Your task to perform on an android device: turn on notifications settings in the gmail app Image 0: 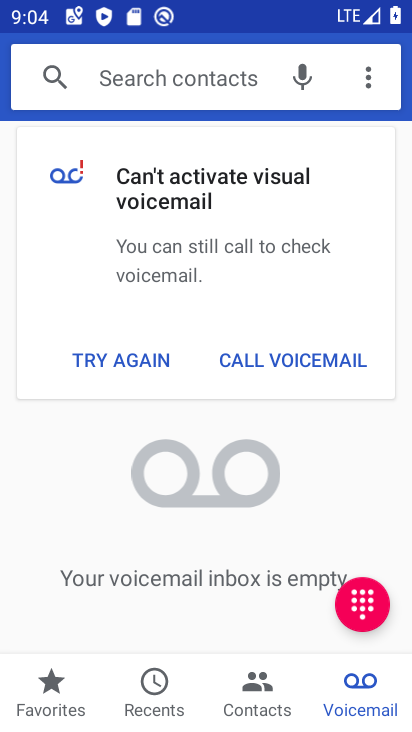
Step 0: press home button
Your task to perform on an android device: turn on notifications settings in the gmail app Image 1: 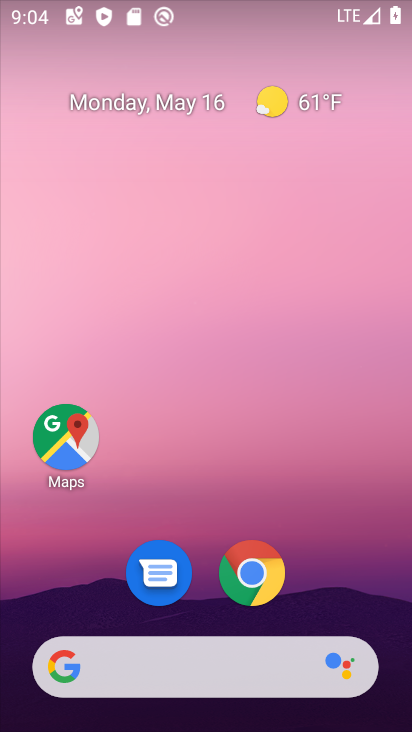
Step 1: drag from (191, 718) to (193, 73)
Your task to perform on an android device: turn on notifications settings in the gmail app Image 2: 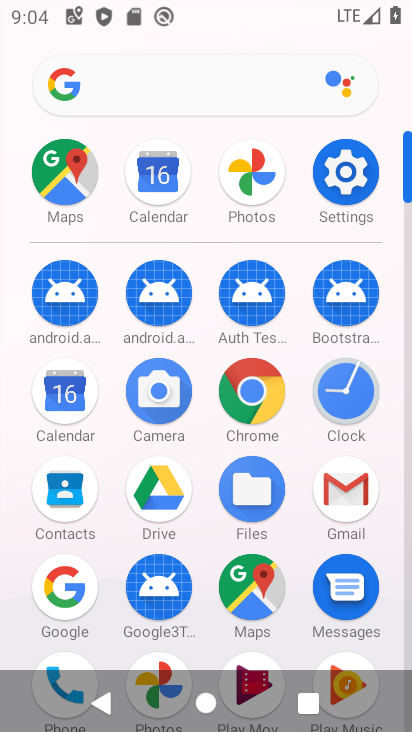
Step 2: click (346, 482)
Your task to perform on an android device: turn on notifications settings in the gmail app Image 3: 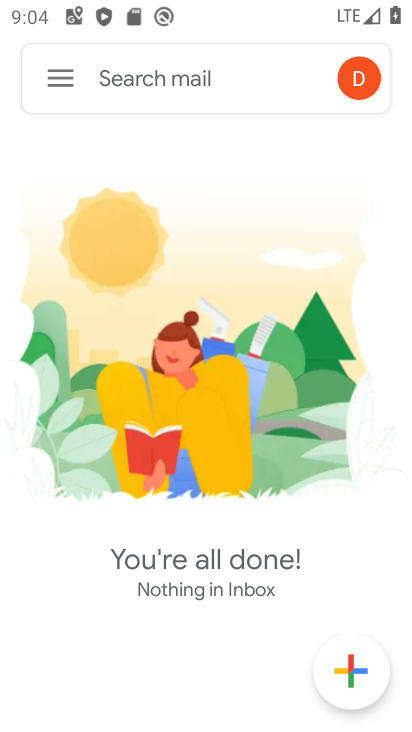
Step 3: click (54, 76)
Your task to perform on an android device: turn on notifications settings in the gmail app Image 4: 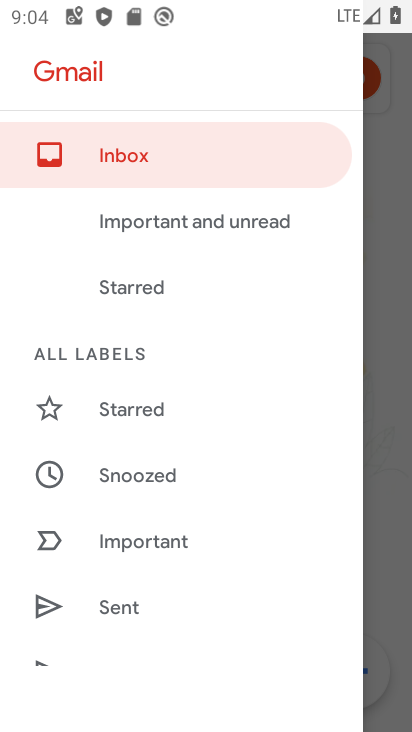
Step 4: drag from (175, 597) to (158, 80)
Your task to perform on an android device: turn on notifications settings in the gmail app Image 5: 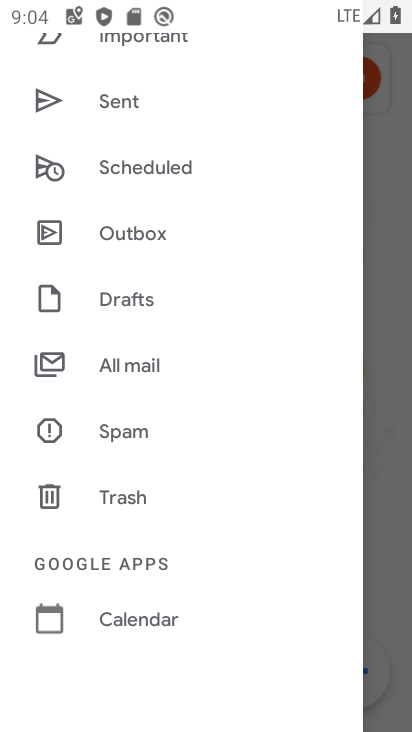
Step 5: drag from (158, 590) to (150, 127)
Your task to perform on an android device: turn on notifications settings in the gmail app Image 6: 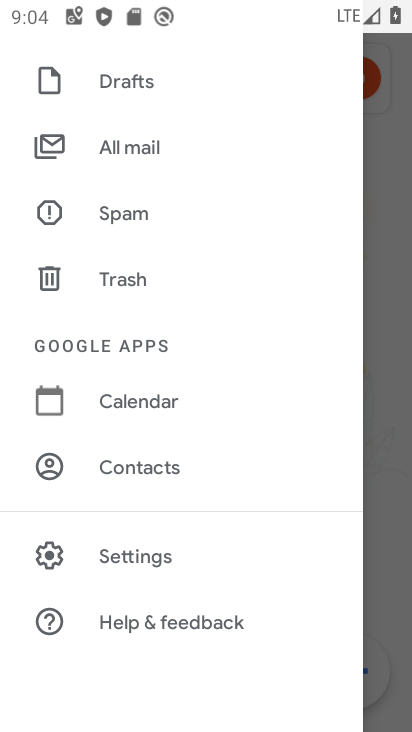
Step 6: click (135, 548)
Your task to perform on an android device: turn on notifications settings in the gmail app Image 7: 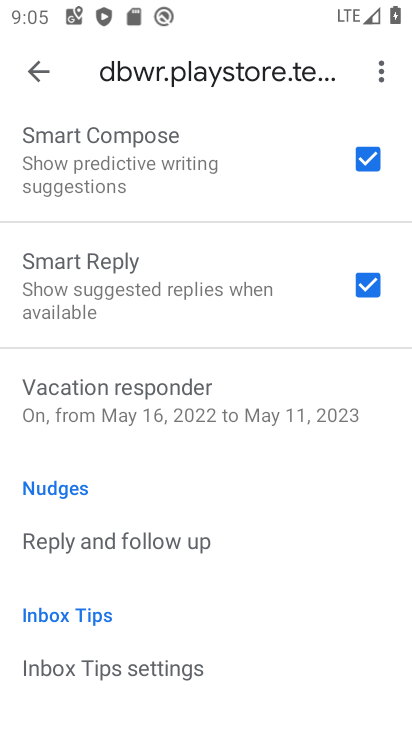
Step 7: drag from (131, 604) to (118, 222)
Your task to perform on an android device: turn on notifications settings in the gmail app Image 8: 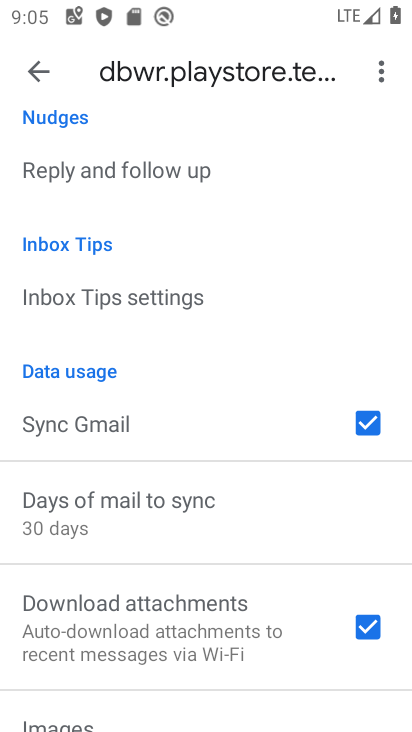
Step 8: drag from (104, 597) to (102, 129)
Your task to perform on an android device: turn on notifications settings in the gmail app Image 9: 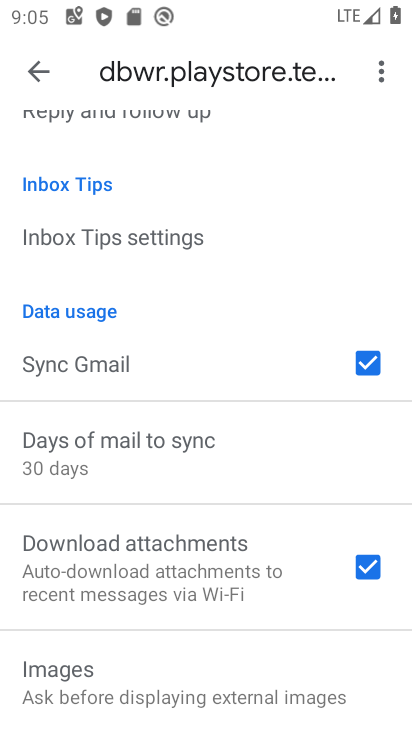
Step 9: drag from (118, 666) to (109, 164)
Your task to perform on an android device: turn on notifications settings in the gmail app Image 10: 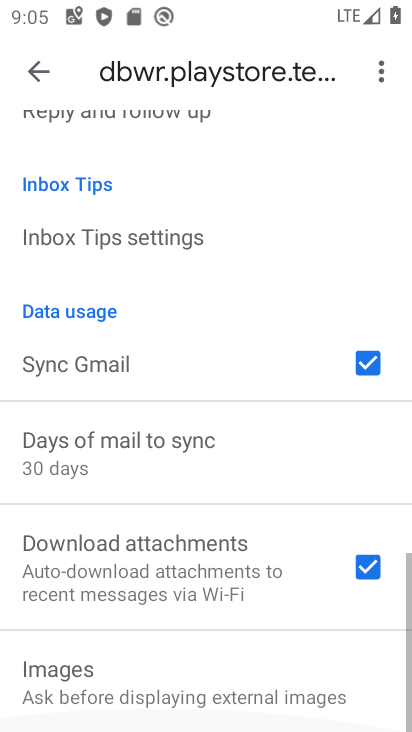
Step 10: drag from (173, 202) to (178, 555)
Your task to perform on an android device: turn on notifications settings in the gmail app Image 11: 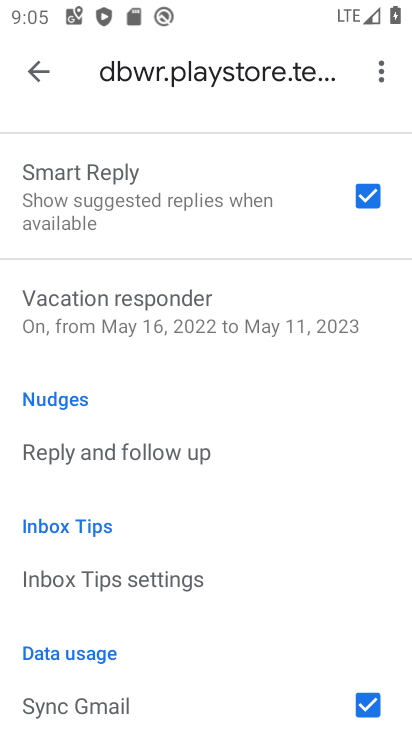
Step 11: drag from (179, 187) to (168, 523)
Your task to perform on an android device: turn on notifications settings in the gmail app Image 12: 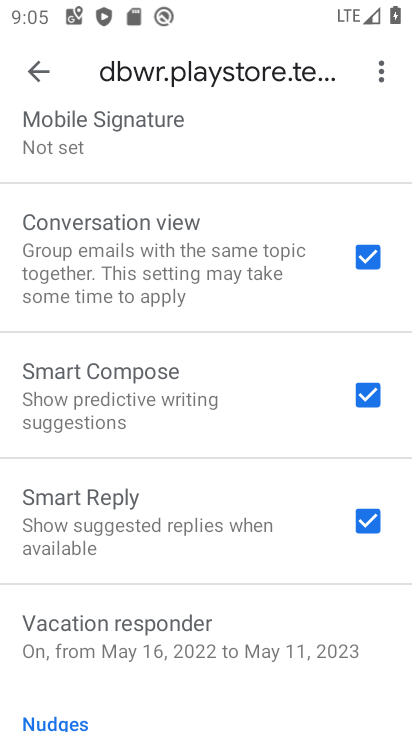
Step 12: drag from (140, 152) to (157, 538)
Your task to perform on an android device: turn on notifications settings in the gmail app Image 13: 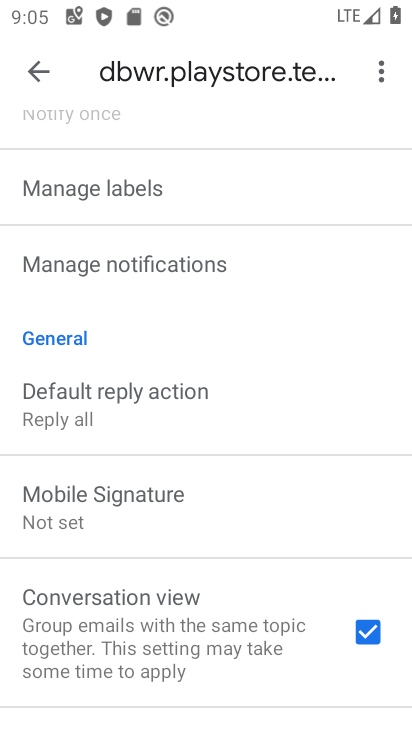
Step 13: drag from (138, 172) to (132, 584)
Your task to perform on an android device: turn on notifications settings in the gmail app Image 14: 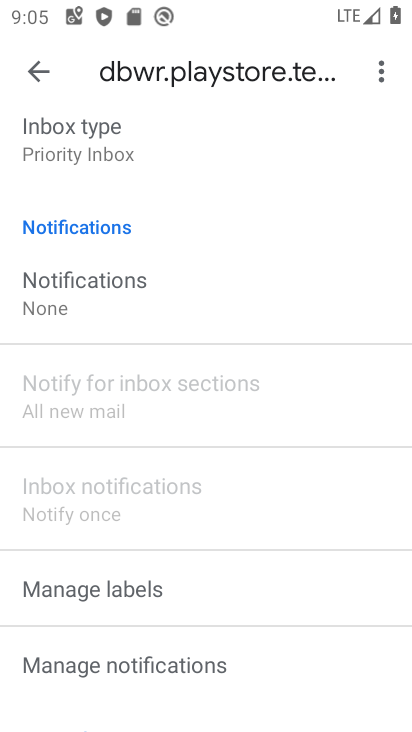
Step 14: drag from (174, 185) to (167, 614)
Your task to perform on an android device: turn on notifications settings in the gmail app Image 15: 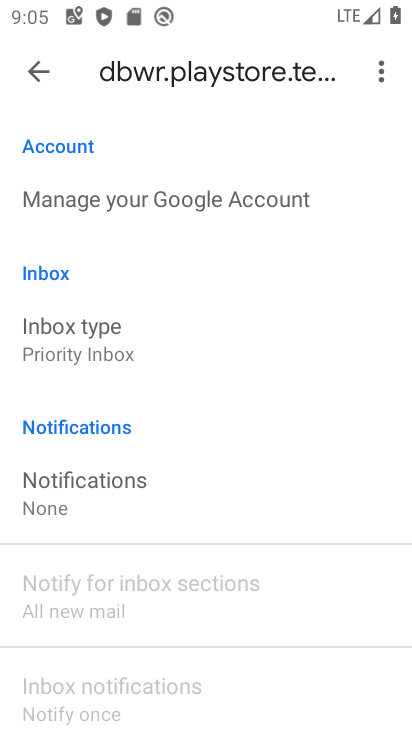
Step 15: click (37, 494)
Your task to perform on an android device: turn on notifications settings in the gmail app Image 16: 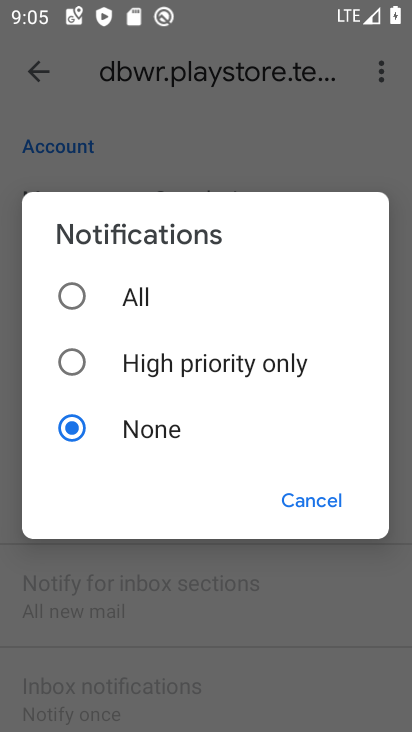
Step 16: click (77, 295)
Your task to perform on an android device: turn on notifications settings in the gmail app Image 17: 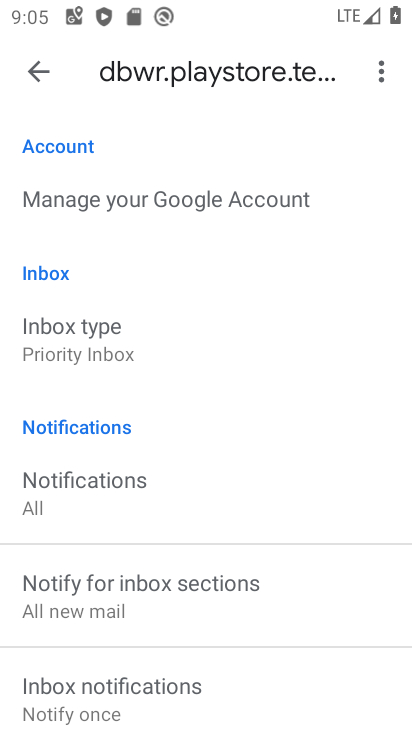
Step 17: task complete